Your task to perform on an android device: Open Google Chrome and click the shortcut for Amazon.com Image 0: 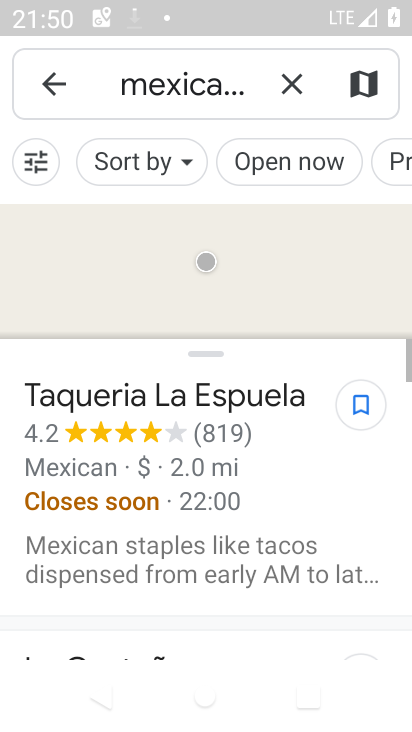
Step 0: press back button
Your task to perform on an android device: Open Google Chrome and click the shortcut for Amazon.com Image 1: 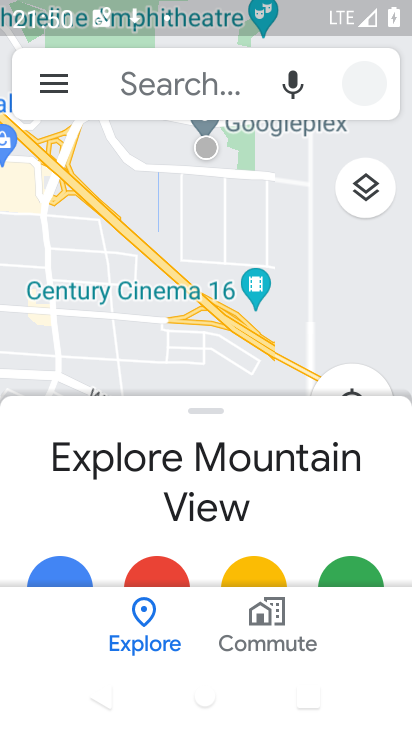
Step 1: press back button
Your task to perform on an android device: Open Google Chrome and click the shortcut for Amazon.com Image 2: 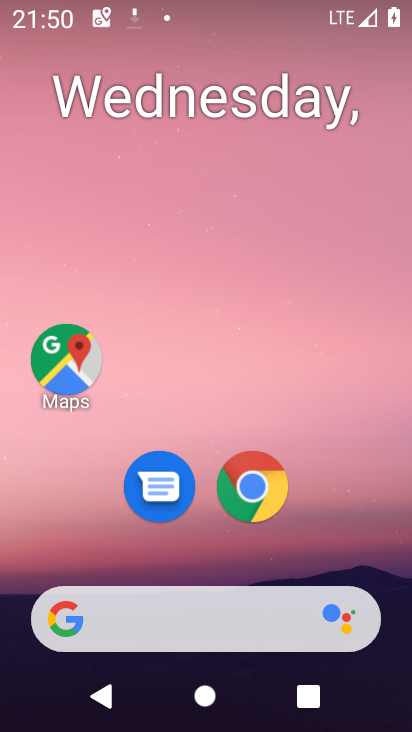
Step 2: click (246, 498)
Your task to perform on an android device: Open Google Chrome and click the shortcut for Amazon.com Image 3: 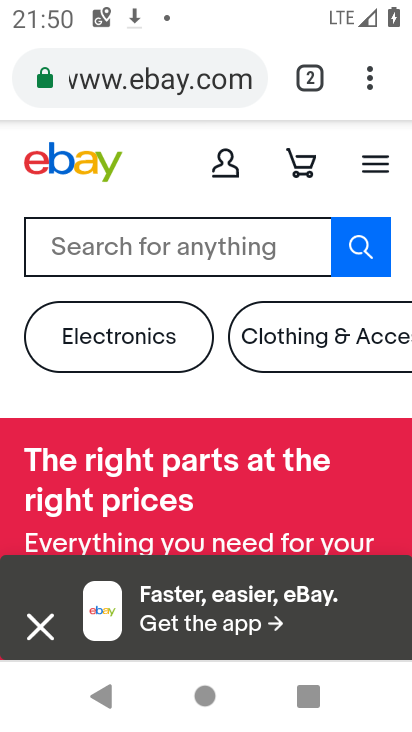
Step 3: click (308, 71)
Your task to perform on an android device: Open Google Chrome and click the shortcut for Amazon.com Image 4: 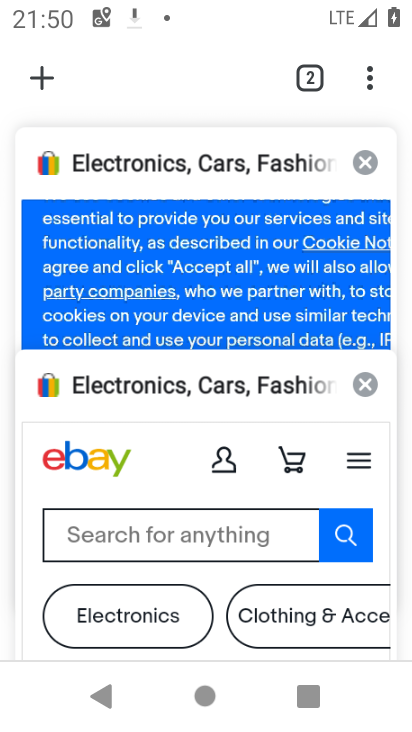
Step 4: click (44, 79)
Your task to perform on an android device: Open Google Chrome and click the shortcut for Amazon.com Image 5: 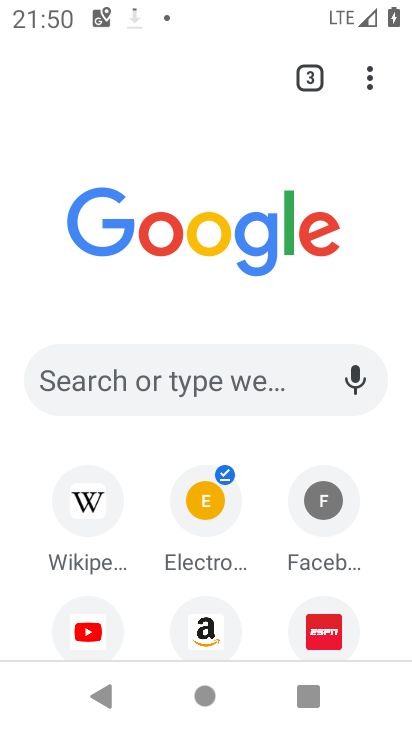
Step 5: click (196, 632)
Your task to perform on an android device: Open Google Chrome and click the shortcut for Amazon.com Image 6: 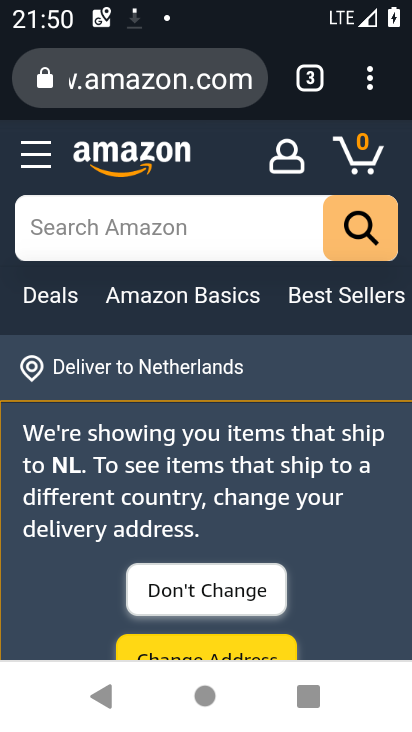
Step 6: task complete